Your task to perform on an android device: Open Google Maps and go to "Timeline" Image 0: 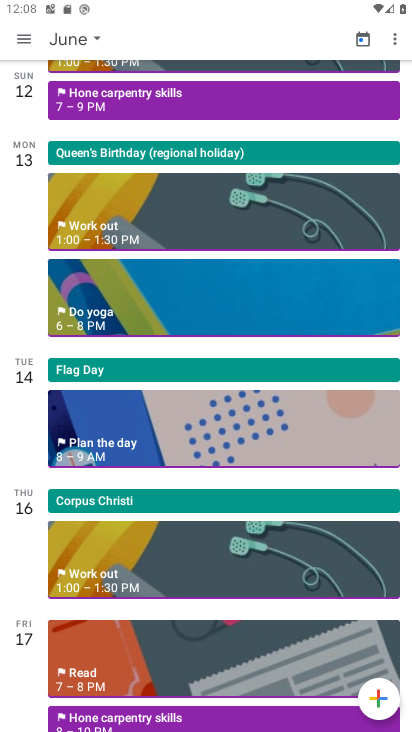
Step 0: press home button
Your task to perform on an android device: Open Google Maps and go to "Timeline" Image 1: 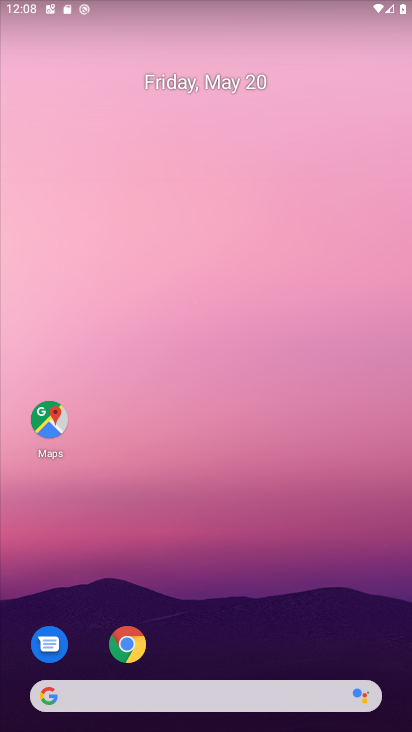
Step 1: click (50, 405)
Your task to perform on an android device: Open Google Maps and go to "Timeline" Image 2: 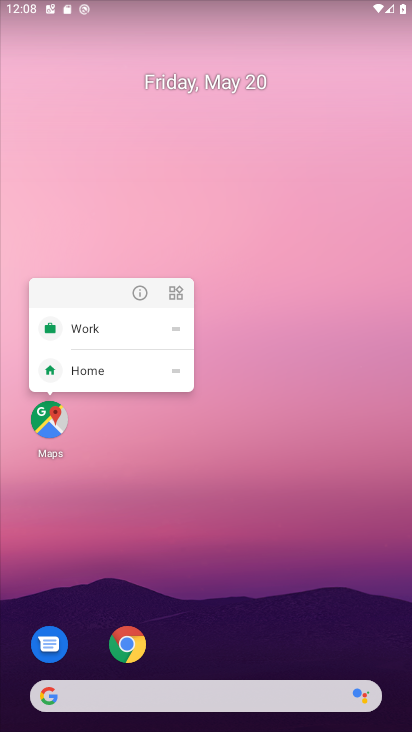
Step 2: click (52, 413)
Your task to perform on an android device: Open Google Maps and go to "Timeline" Image 3: 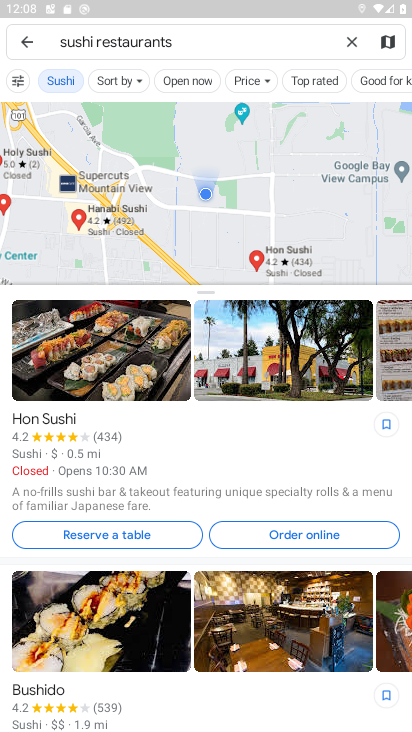
Step 3: click (18, 43)
Your task to perform on an android device: Open Google Maps and go to "Timeline" Image 4: 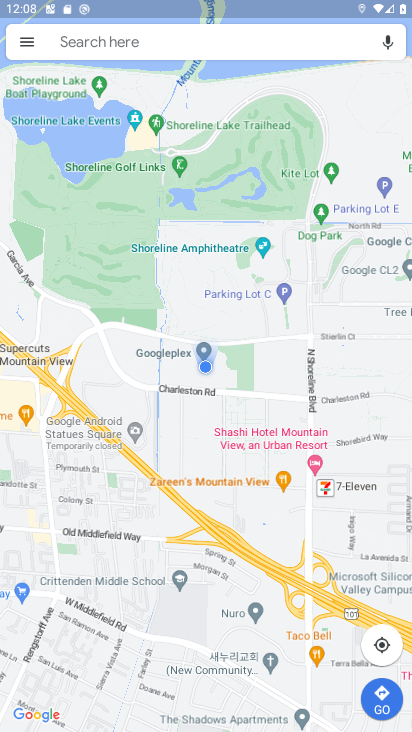
Step 4: click (29, 43)
Your task to perform on an android device: Open Google Maps and go to "Timeline" Image 5: 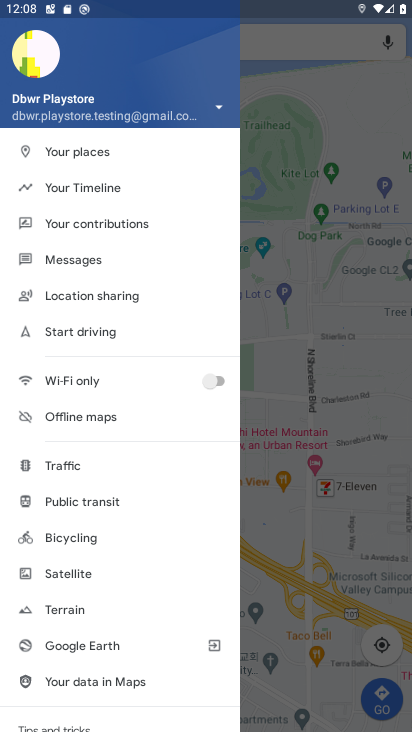
Step 5: click (92, 194)
Your task to perform on an android device: Open Google Maps and go to "Timeline" Image 6: 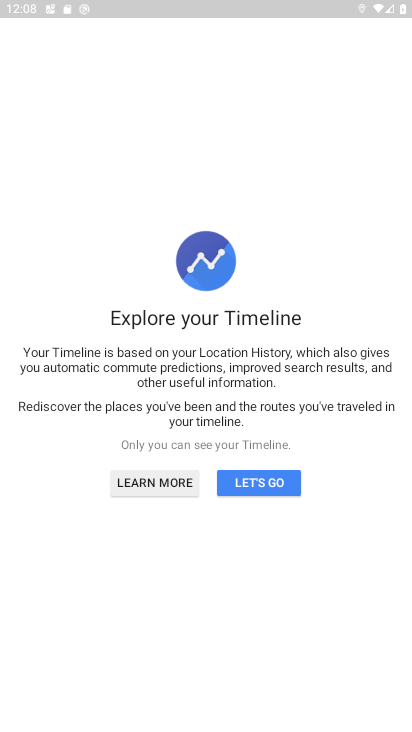
Step 6: click (285, 481)
Your task to perform on an android device: Open Google Maps and go to "Timeline" Image 7: 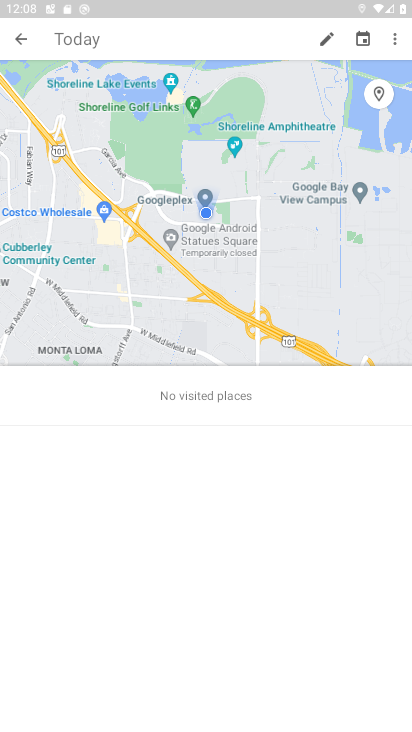
Step 7: task complete